Your task to perform on an android device: choose inbox layout in the gmail app Image 0: 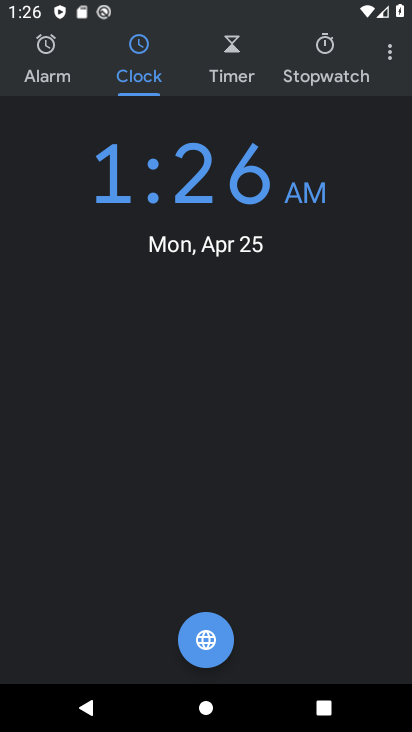
Step 0: press home button
Your task to perform on an android device: choose inbox layout in the gmail app Image 1: 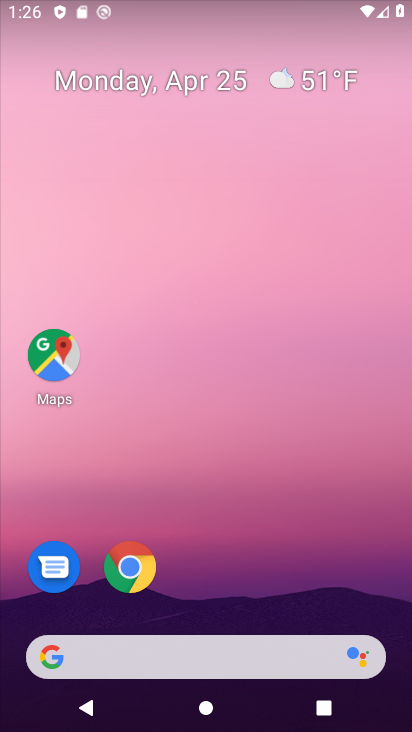
Step 1: drag from (360, 559) to (243, 11)
Your task to perform on an android device: choose inbox layout in the gmail app Image 2: 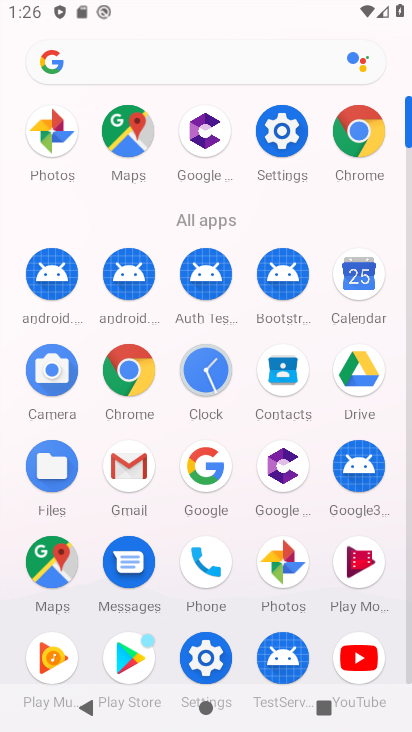
Step 2: click (120, 458)
Your task to perform on an android device: choose inbox layout in the gmail app Image 3: 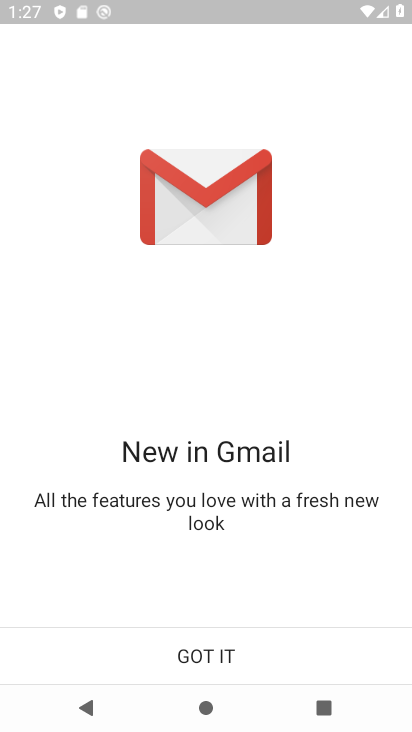
Step 3: click (242, 654)
Your task to perform on an android device: choose inbox layout in the gmail app Image 4: 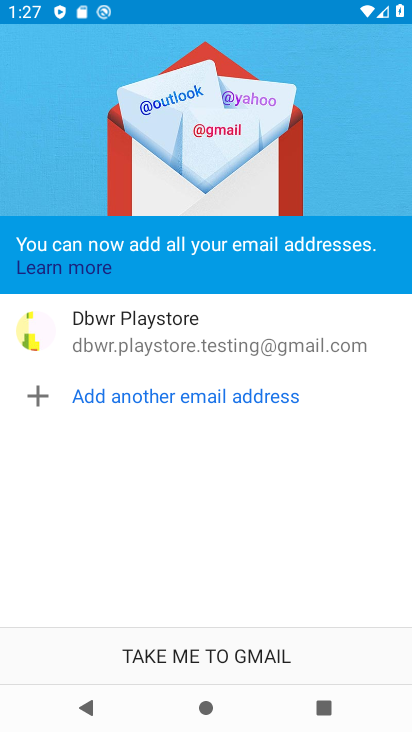
Step 4: click (246, 653)
Your task to perform on an android device: choose inbox layout in the gmail app Image 5: 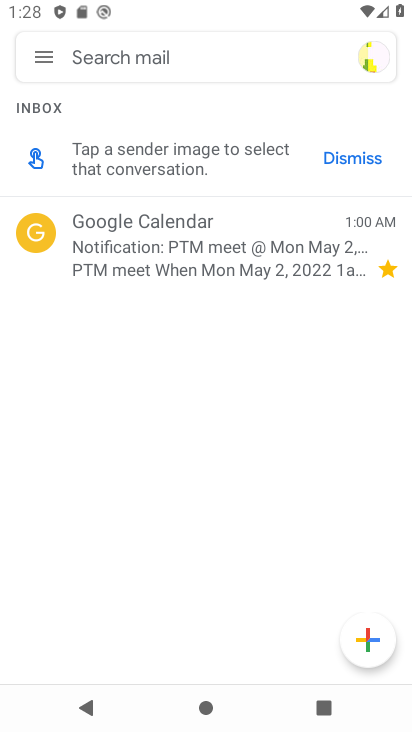
Step 5: click (45, 63)
Your task to perform on an android device: choose inbox layout in the gmail app Image 6: 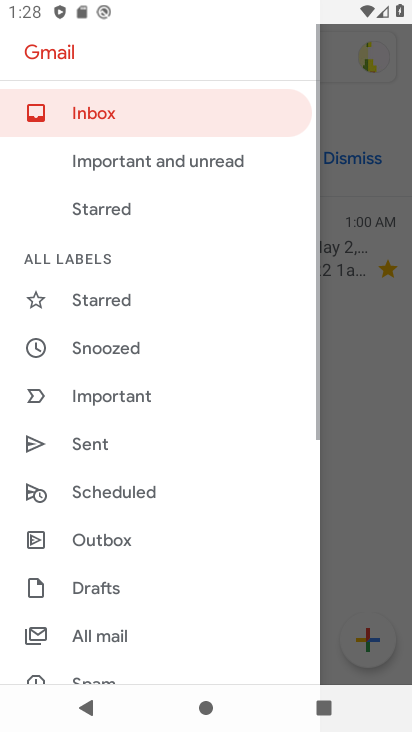
Step 6: drag from (152, 597) to (140, 267)
Your task to perform on an android device: choose inbox layout in the gmail app Image 7: 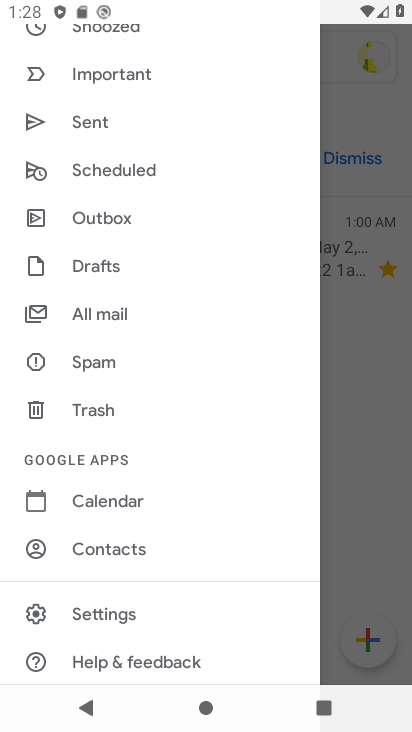
Step 7: click (112, 613)
Your task to perform on an android device: choose inbox layout in the gmail app Image 8: 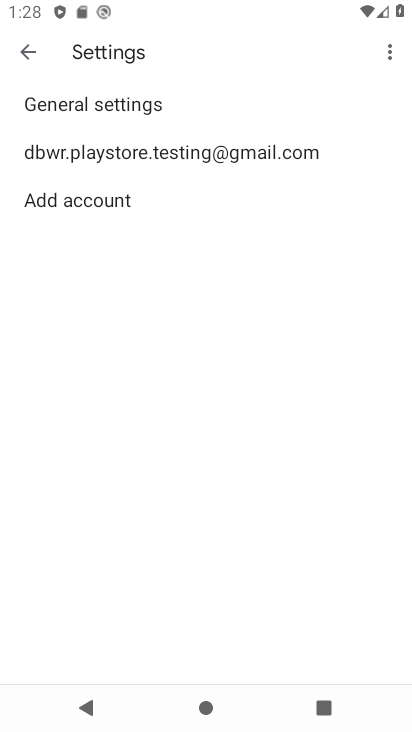
Step 8: click (114, 149)
Your task to perform on an android device: choose inbox layout in the gmail app Image 9: 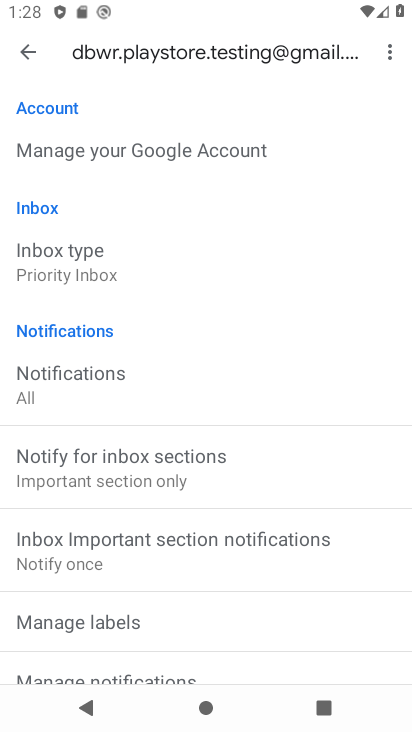
Step 9: click (91, 253)
Your task to perform on an android device: choose inbox layout in the gmail app Image 10: 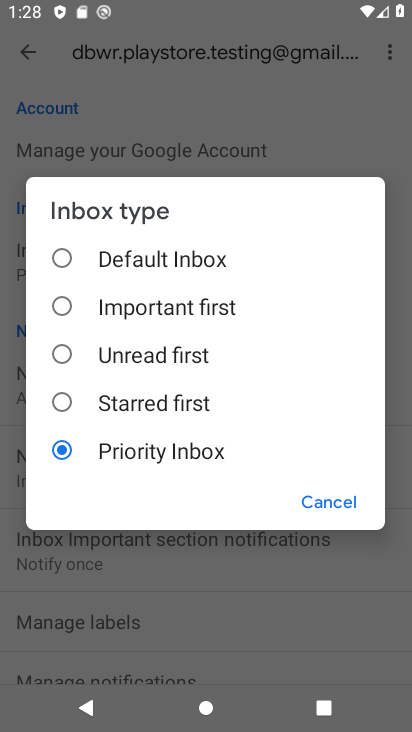
Step 10: click (145, 260)
Your task to perform on an android device: choose inbox layout in the gmail app Image 11: 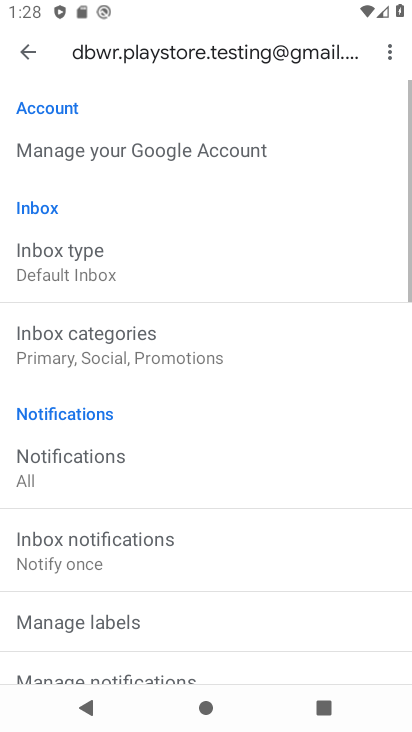
Step 11: task complete